Your task to perform on an android device: change the clock style Image 0: 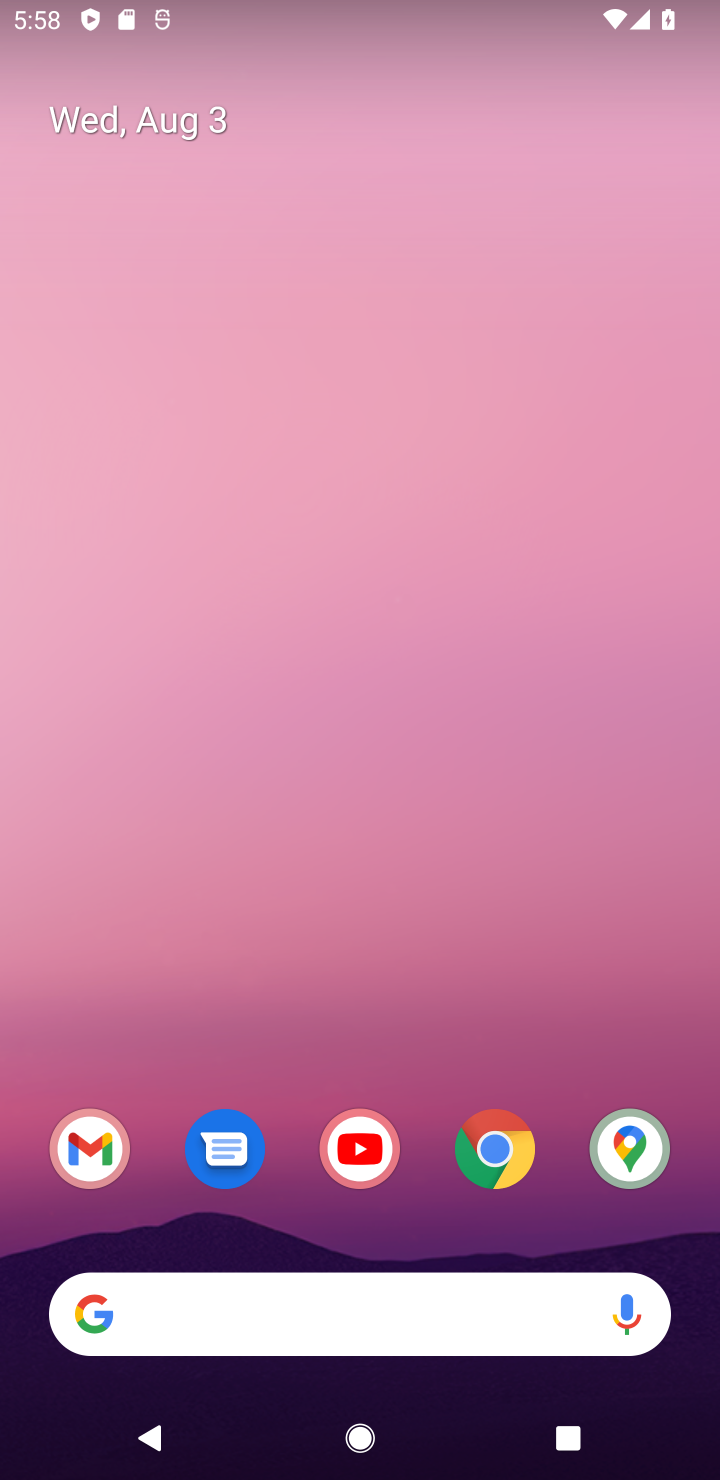
Step 0: drag from (415, 1284) to (458, 216)
Your task to perform on an android device: change the clock style Image 1: 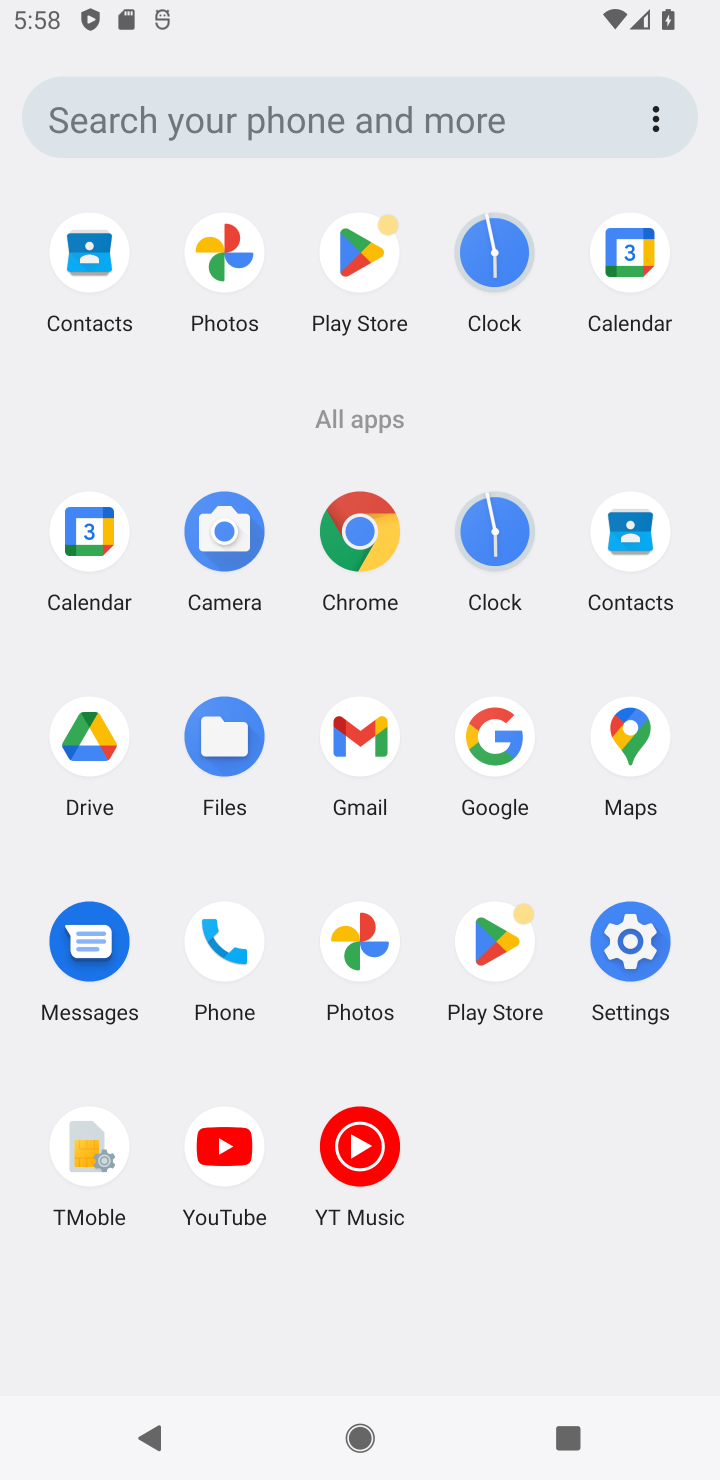
Step 1: click (473, 539)
Your task to perform on an android device: change the clock style Image 2: 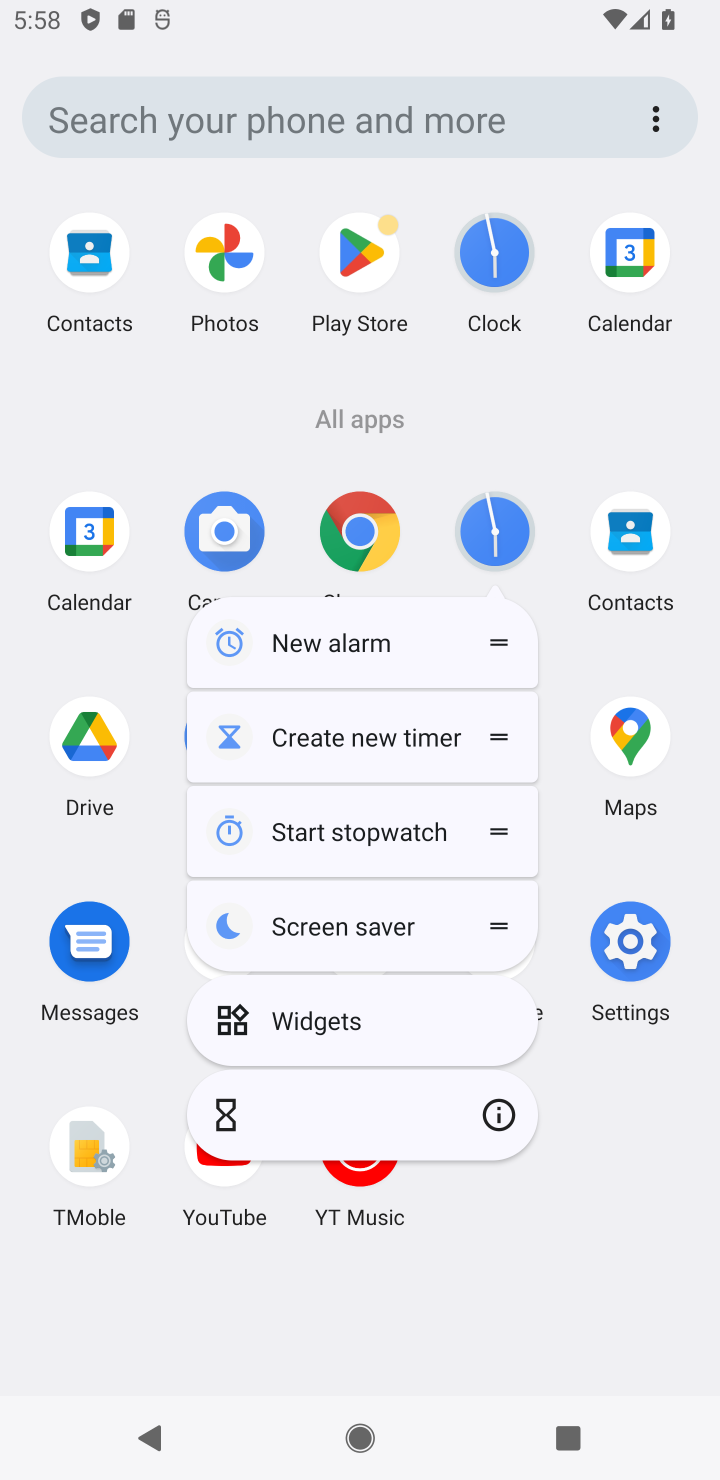
Step 2: click (506, 236)
Your task to perform on an android device: change the clock style Image 3: 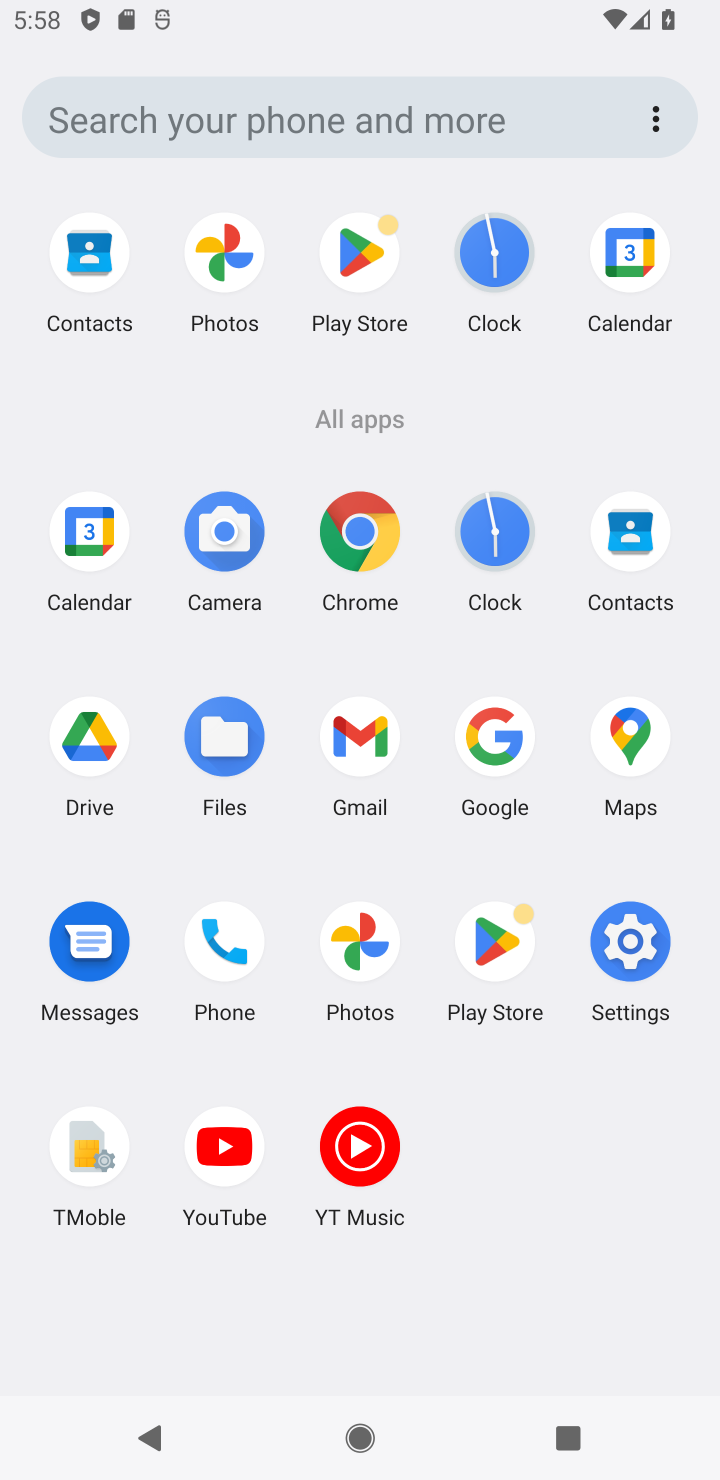
Step 3: click (506, 236)
Your task to perform on an android device: change the clock style Image 4: 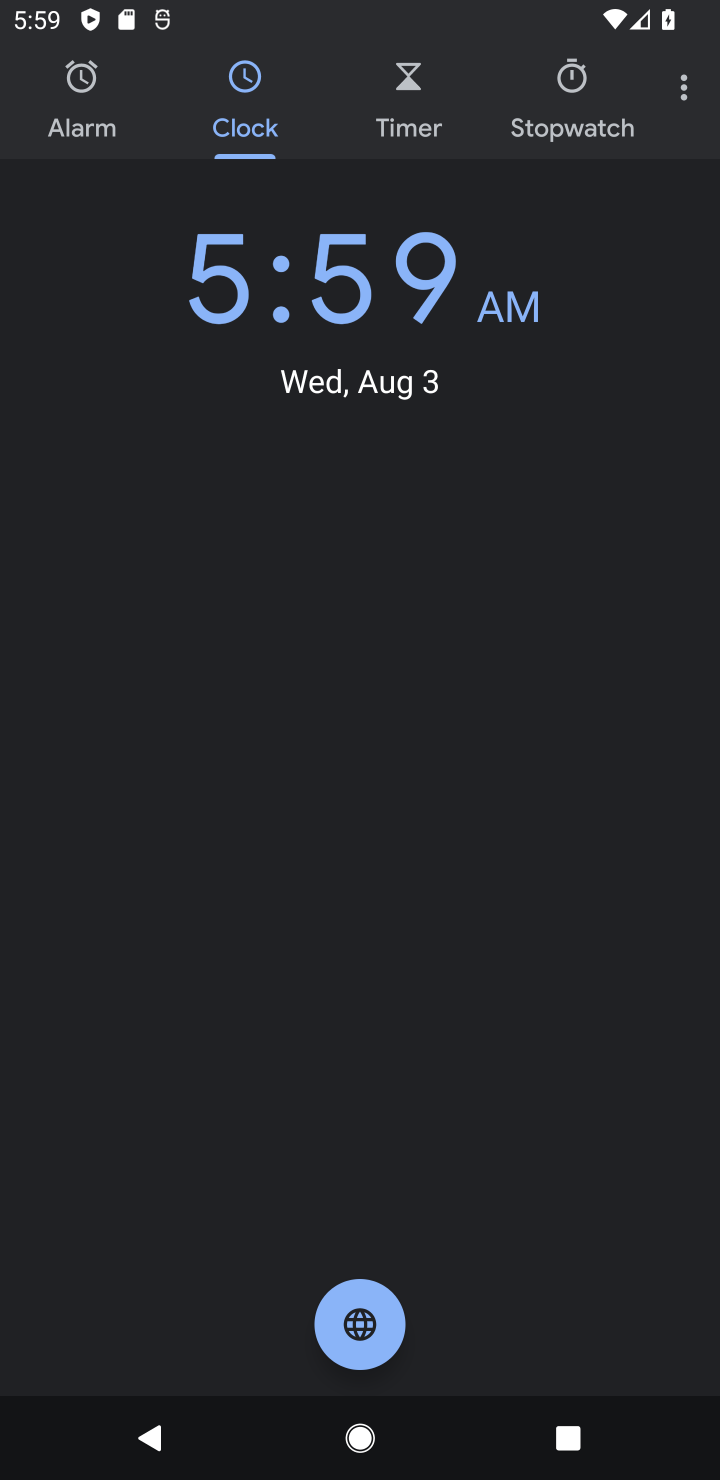
Step 4: click (686, 92)
Your task to perform on an android device: change the clock style Image 5: 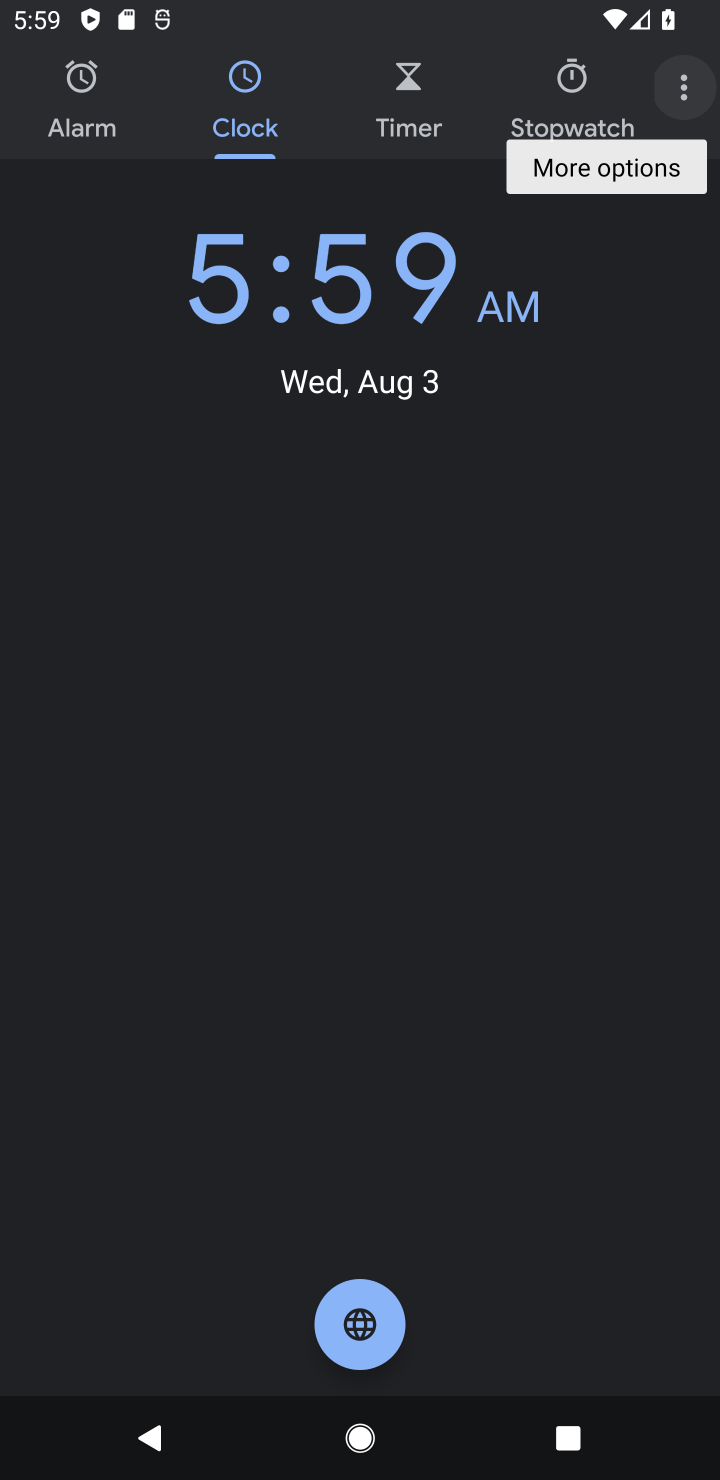
Step 5: click (686, 94)
Your task to perform on an android device: change the clock style Image 6: 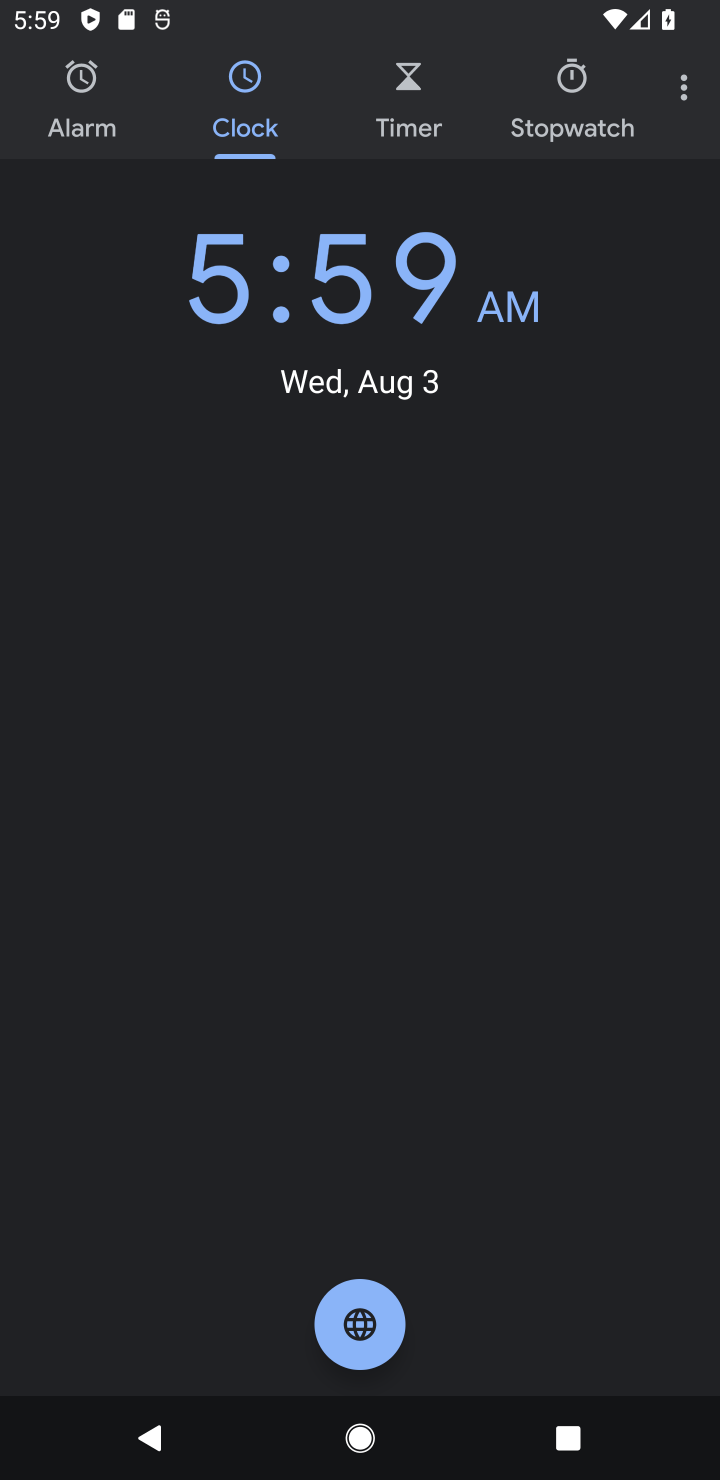
Step 6: click (689, 101)
Your task to perform on an android device: change the clock style Image 7: 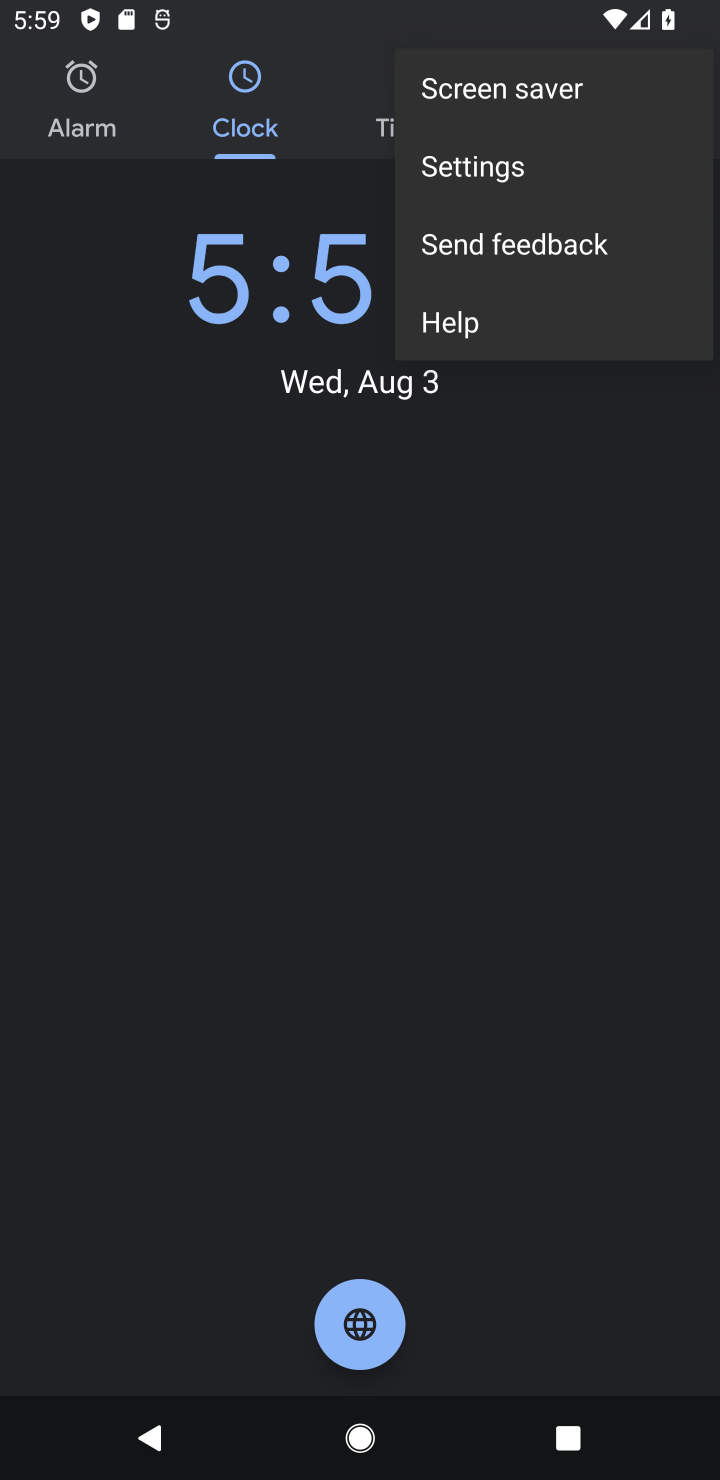
Step 7: click (508, 188)
Your task to perform on an android device: change the clock style Image 8: 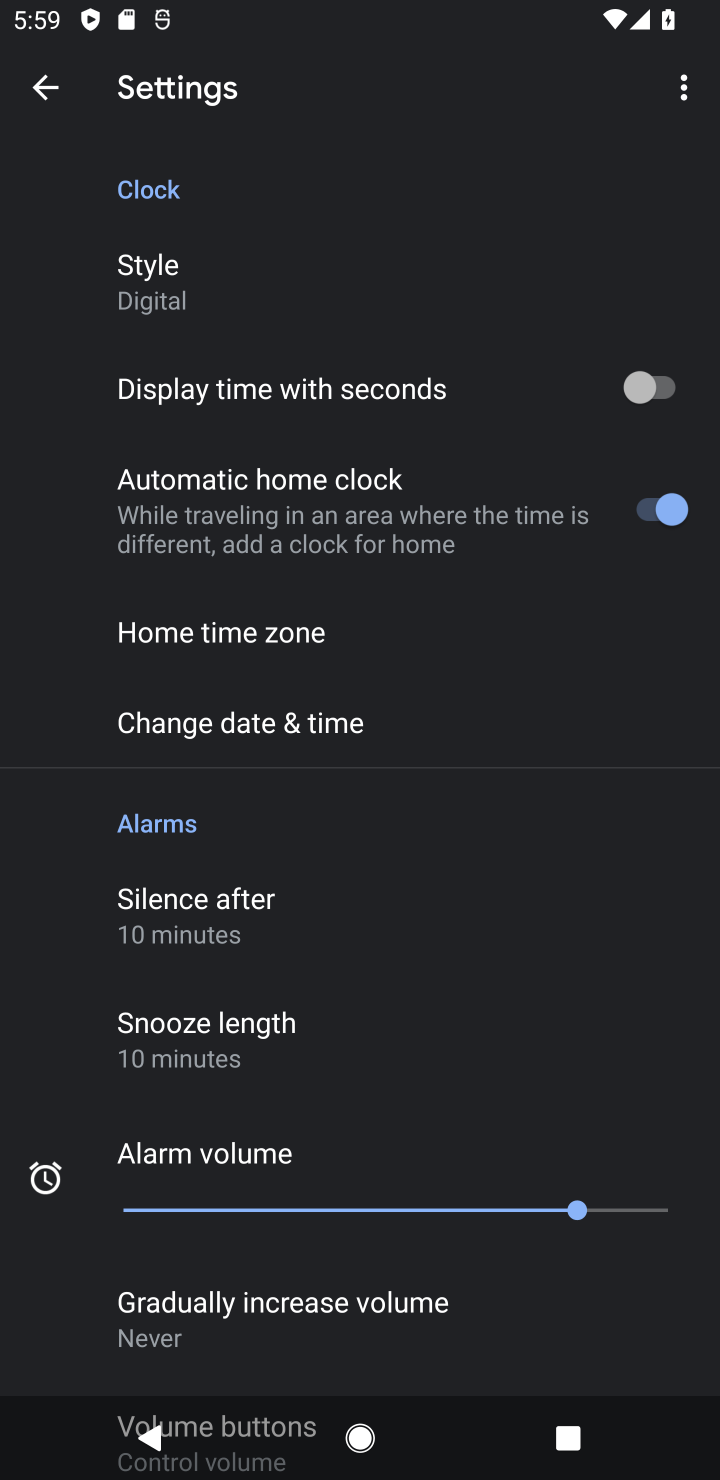
Step 8: click (215, 278)
Your task to perform on an android device: change the clock style Image 9: 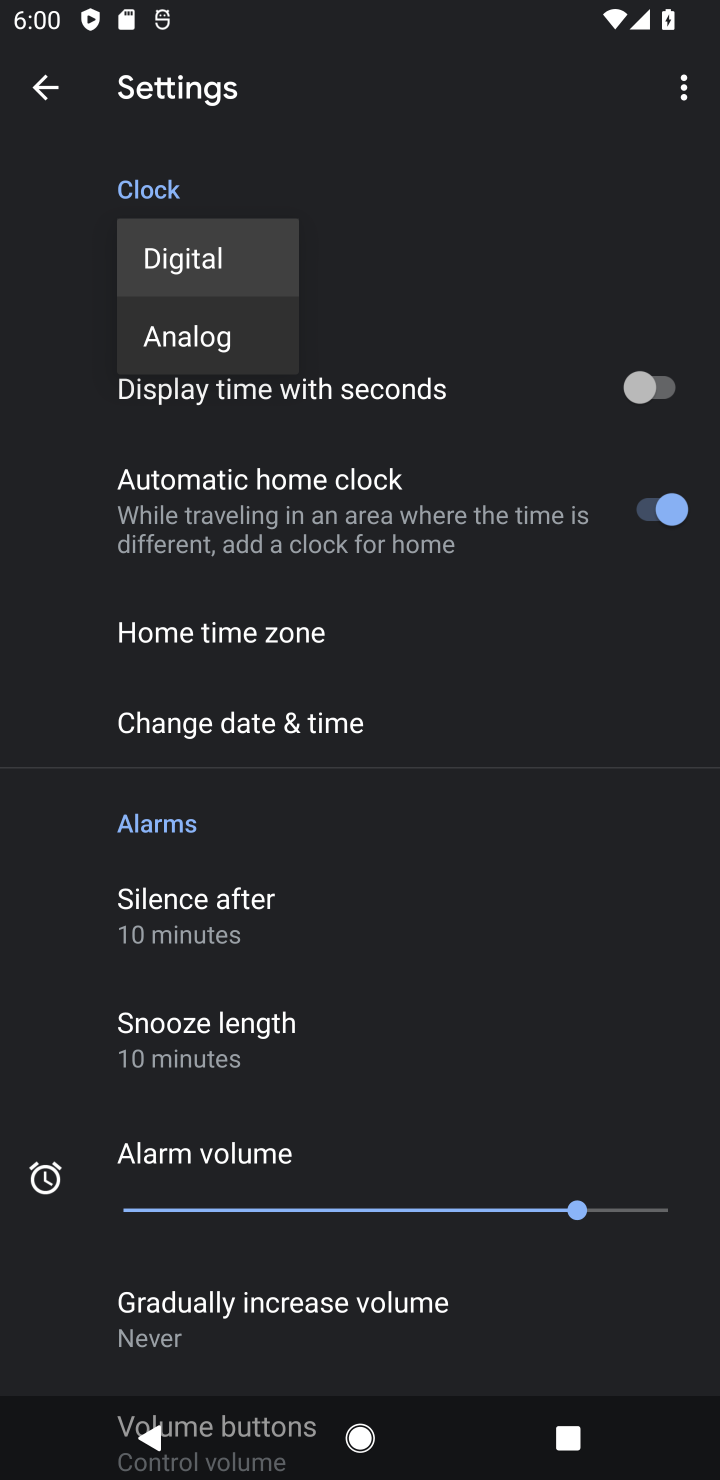
Step 9: click (220, 358)
Your task to perform on an android device: change the clock style Image 10: 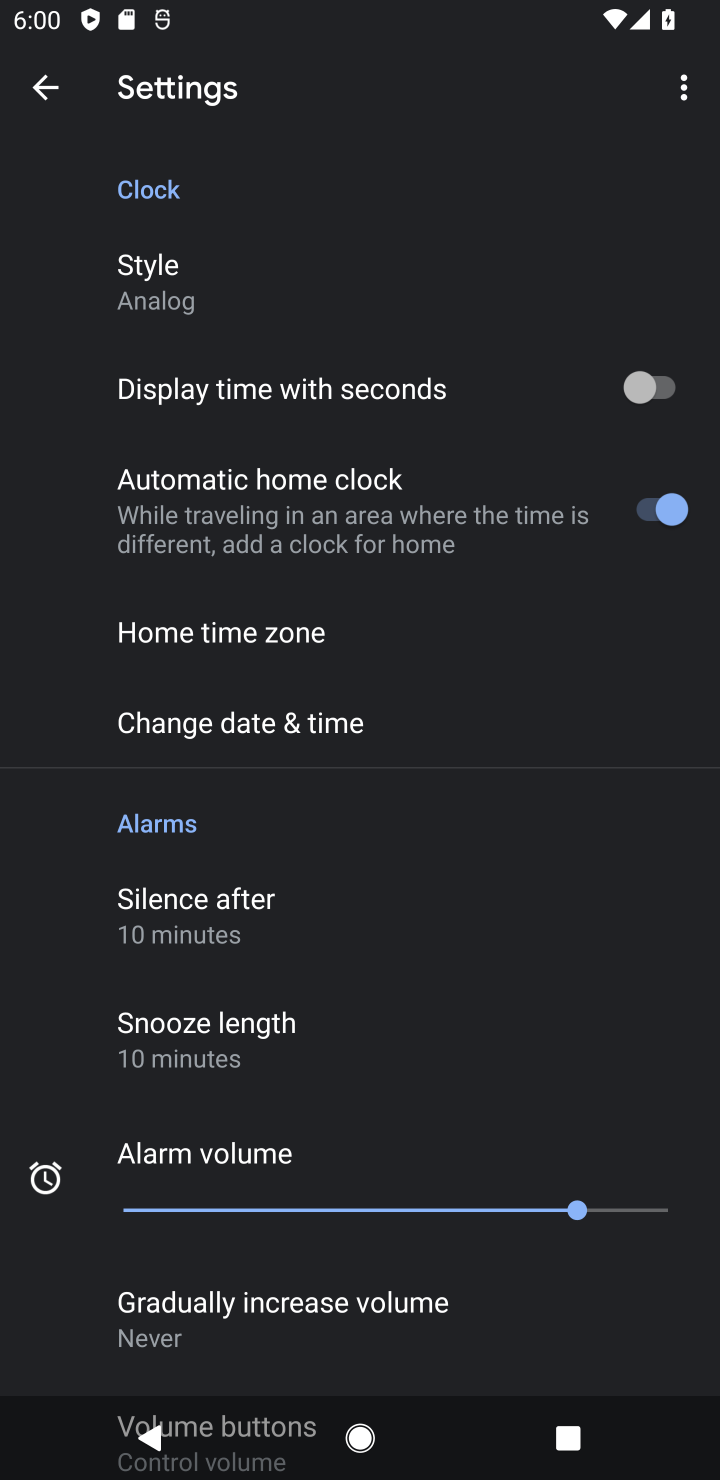
Step 10: task complete